Your task to perform on an android device: Open Maps and search for coffee Image 0: 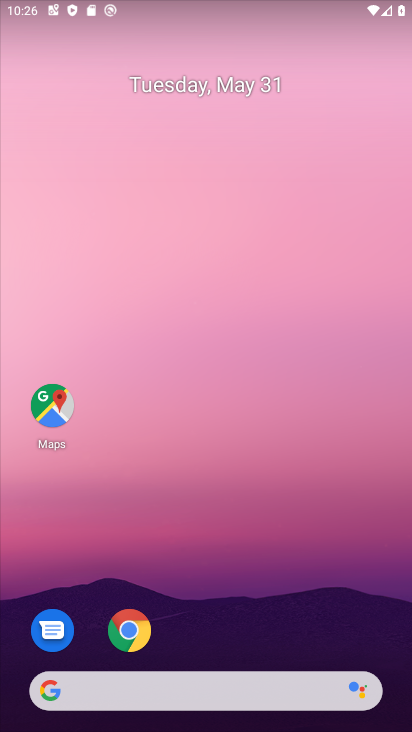
Step 0: click (60, 413)
Your task to perform on an android device: Open Maps and search for coffee Image 1: 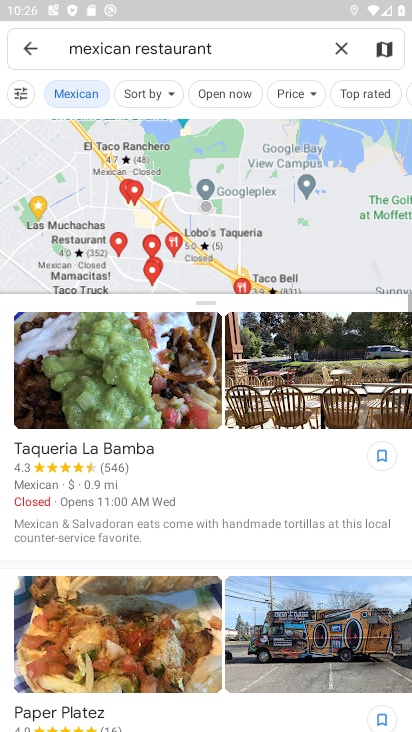
Step 1: click (342, 45)
Your task to perform on an android device: Open Maps and search for coffee Image 2: 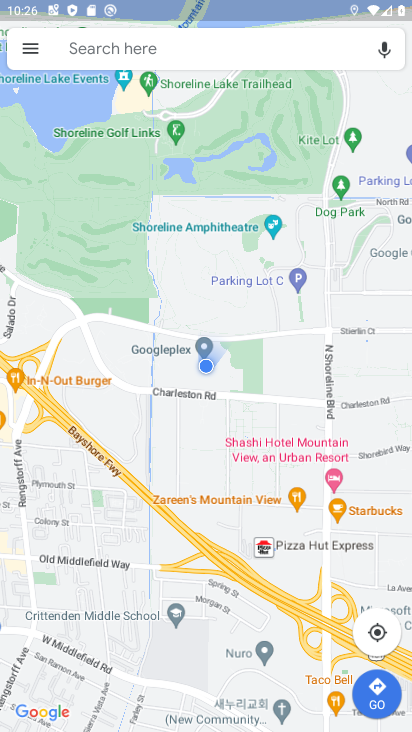
Step 2: click (186, 50)
Your task to perform on an android device: Open Maps and search for coffee Image 3: 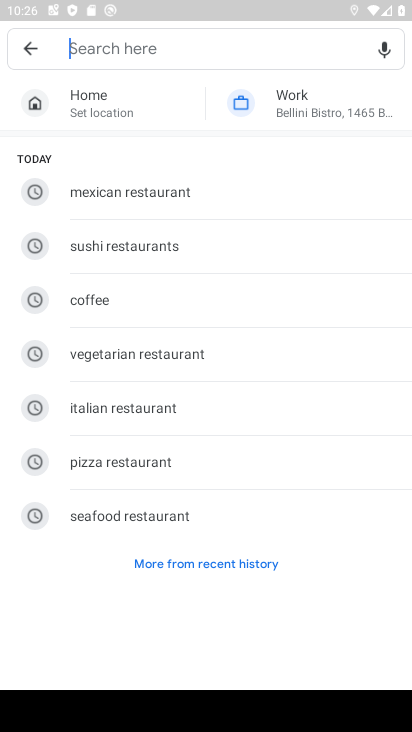
Step 3: type " coffee"
Your task to perform on an android device: Open Maps and search for coffee Image 4: 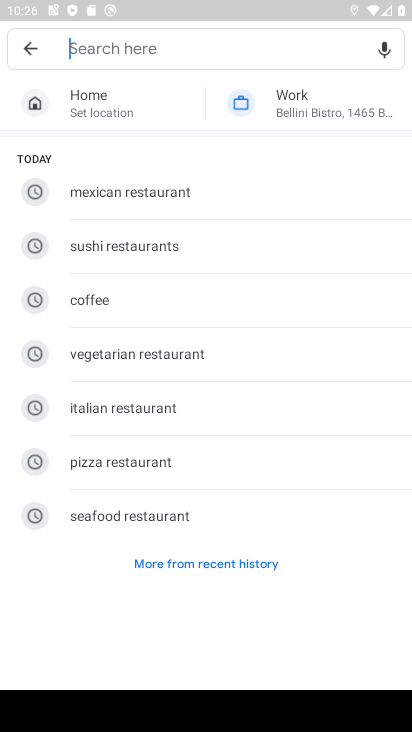
Step 4: click (99, 298)
Your task to perform on an android device: Open Maps and search for coffee Image 5: 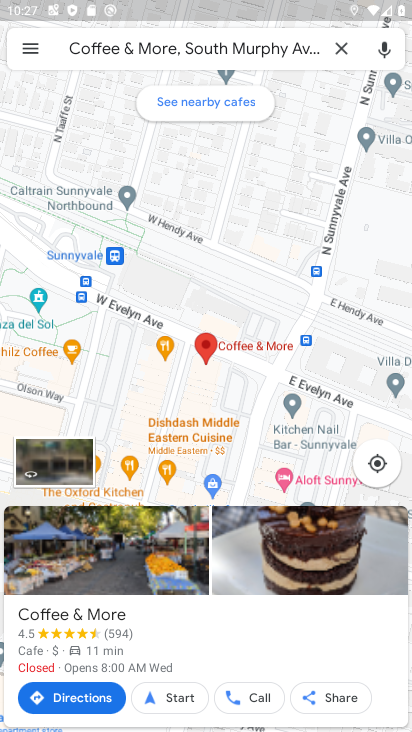
Step 5: task complete